Your task to perform on an android device: check android version Image 0: 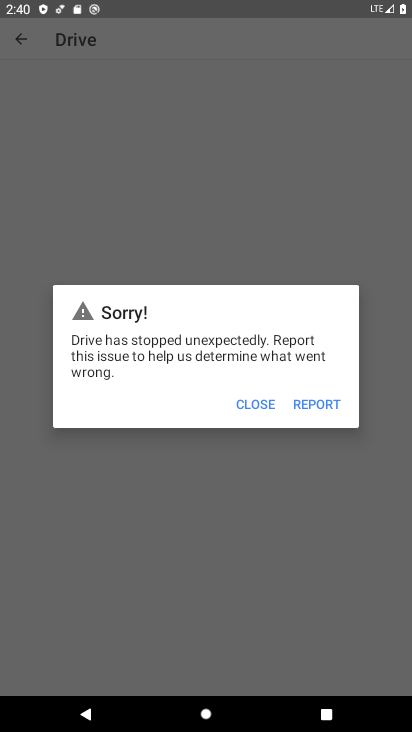
Step 0: press home button
Your task to perform on an android device: check android version Image 1: 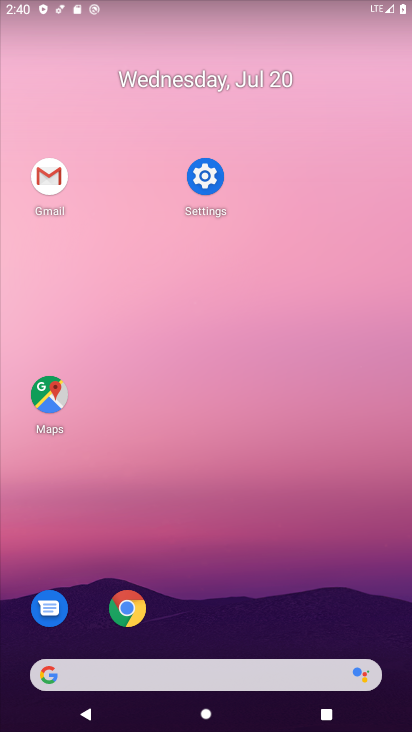
Step 1: click (195, 171)
Your task to perform on an android device: check android version Image 2: 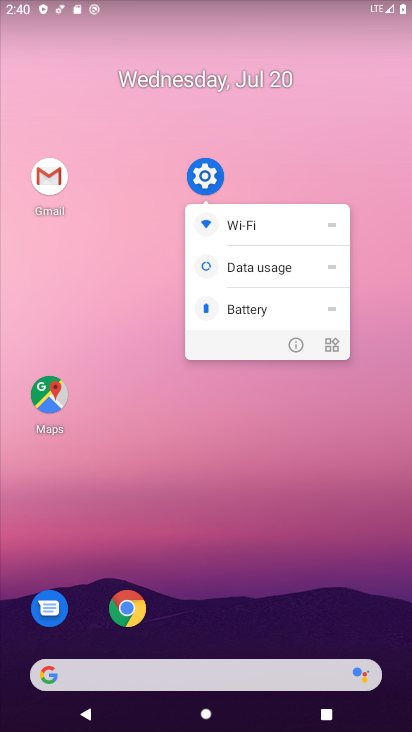
Step 2: click (207, 179)
Your task to perform on an android device: check android version Image 3: 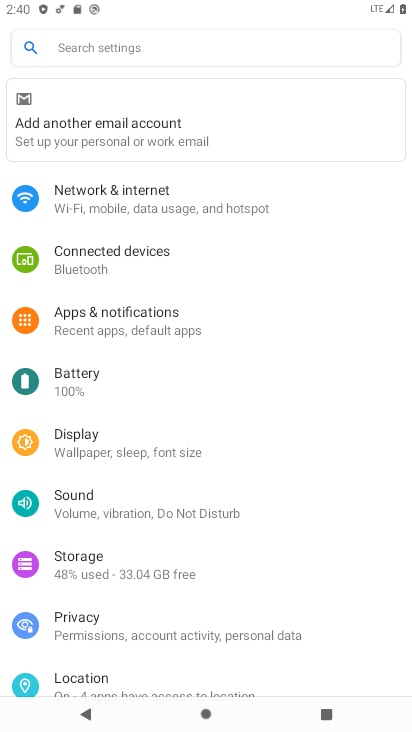
Step 3: drag from (205, 591) to (232, 217)
Your task to perform on an android device: check android version Image 4: 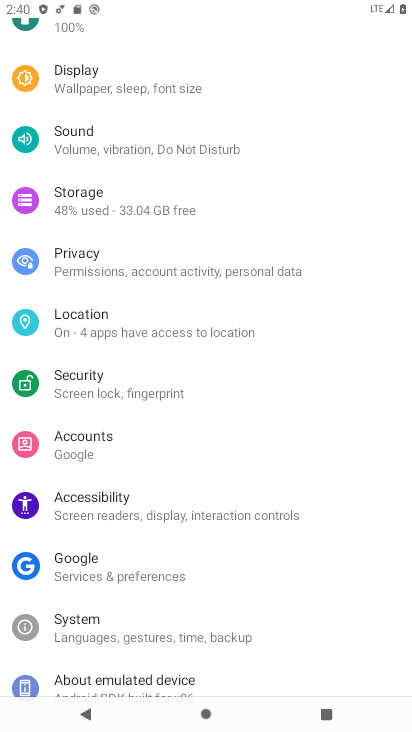
Step 4: drag from (164, 660) to (185, 311)
Your task to perform on an android device: check android version Image 5: 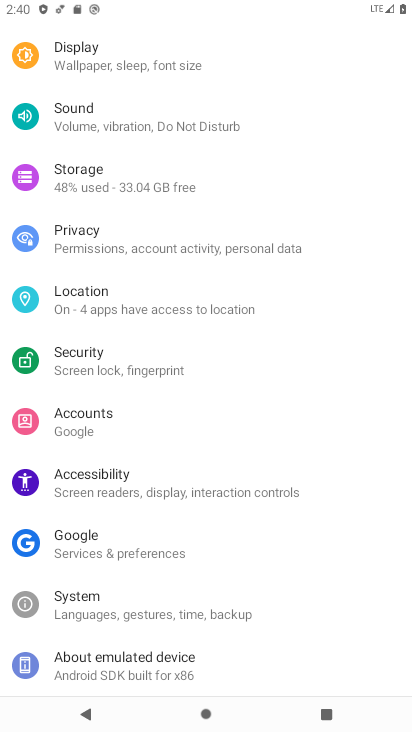
Step 5: click (144, 669)
Your task to perform on an android device: check android version Image 6: 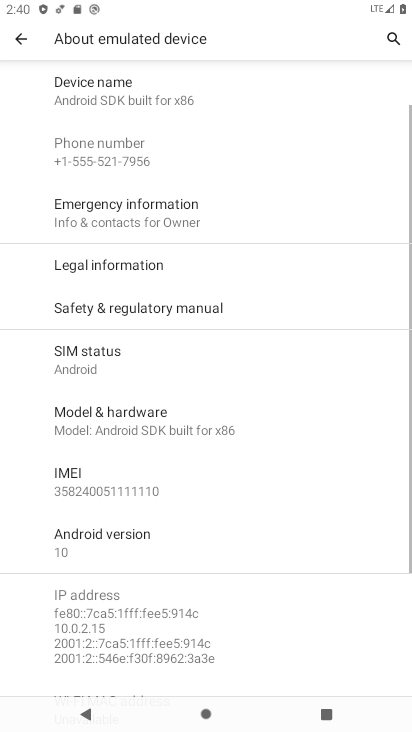
Step 6: click (111, 543)
Your task to perform on an android device: check android version Image 7: 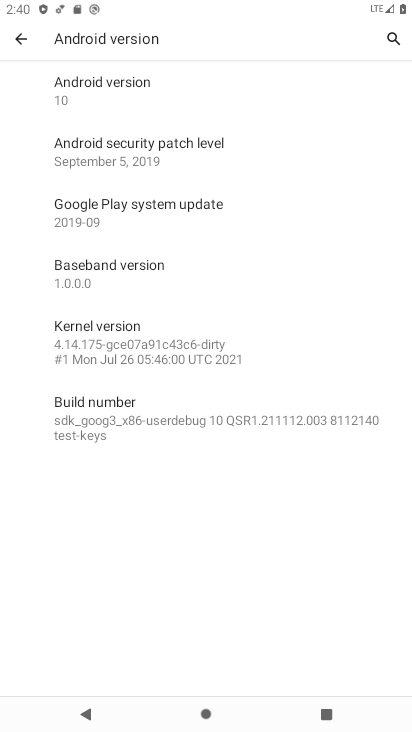
Step 7: task complete